Your task to perform on an android device: find which apps use the phone's location Image 0: 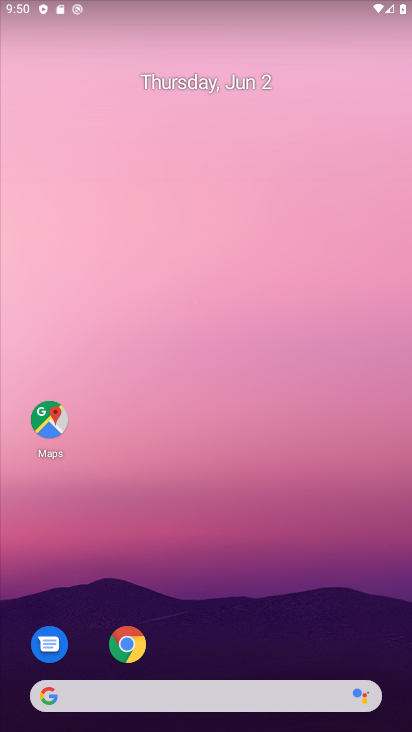
Step 0: drag from (174, 645) to (155, 251)
Your task to perform on an android device: find which apps use the phone's location Image 1: 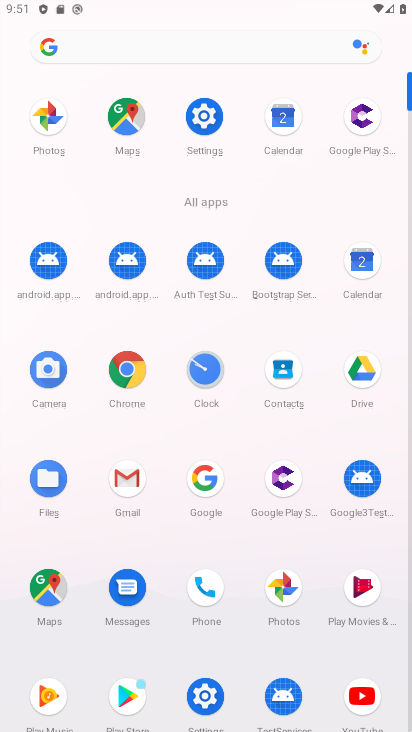
Step 1: click (127, 398)
Your task to perform on an android device: find which apps use the phone's location Image 2: 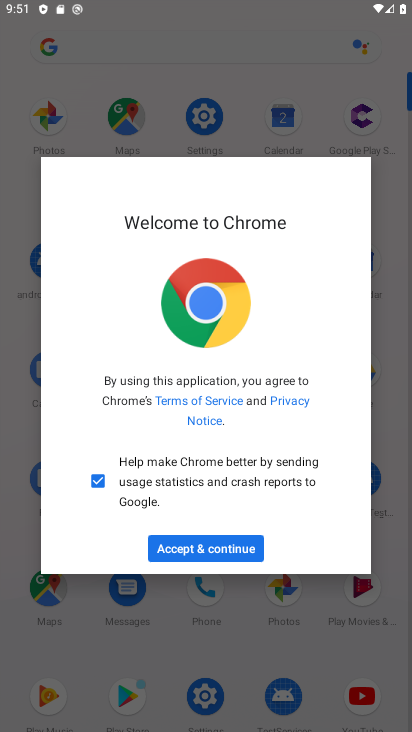
Step 2: click (205, 556)
Your task to perform on an android device: find which apps use the phone's location Image 3: 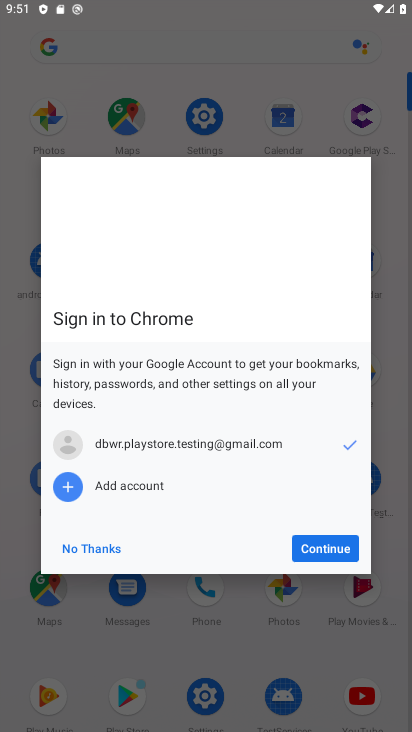
Step 3: click (319, 547)
Your task to perform on an android device: find which apps use the phone's location Image 4: 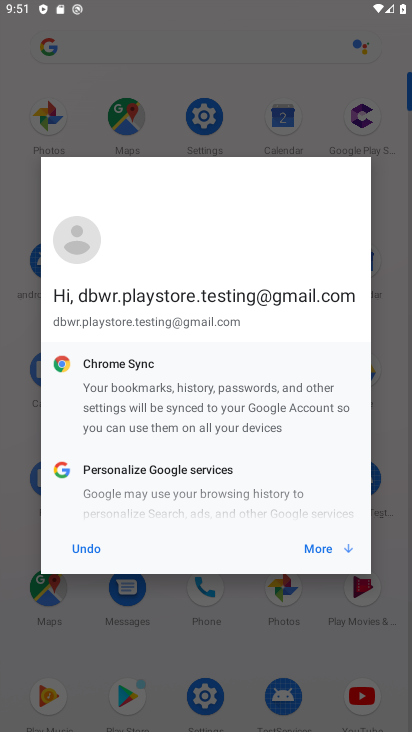
Step 4: click (319, 547)
Your task to perform on an android device: find which apps use the phone's location Image 5: 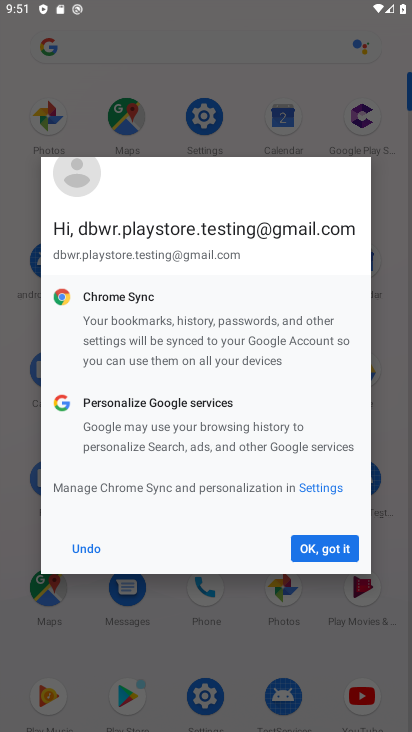
Step 5: click (319, 547)
Your task to perform on an android device: find which apps use the phone's location Image 6: 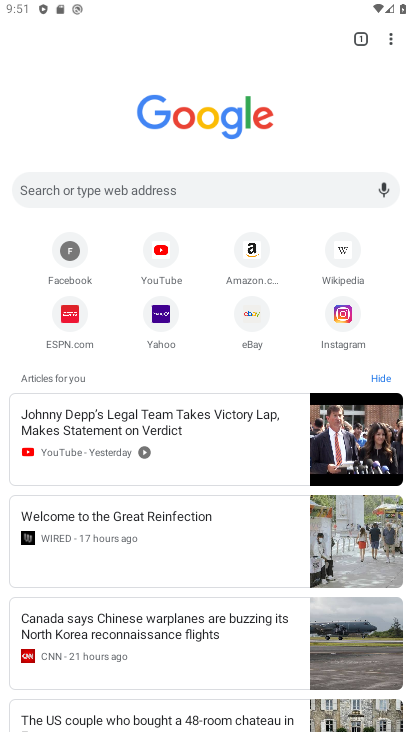
Step 6: press home button
Your task to perform on an android device: find which apps use the phone's location Image 7: 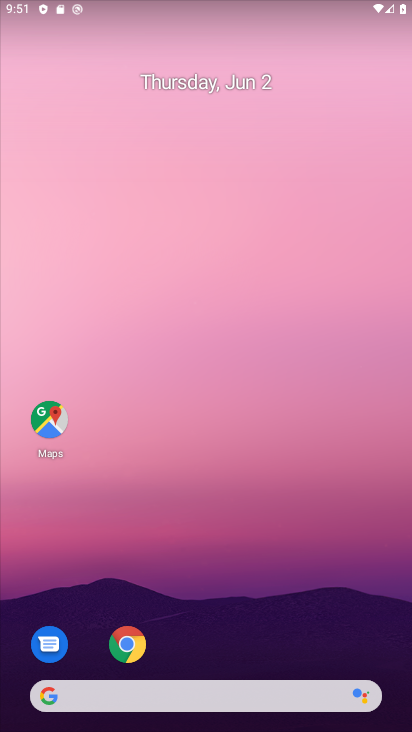
Step 7: drag from (237, 648) to (250, 215)
Your task to perform on an android device: find which apps use the phone's location Image 8: 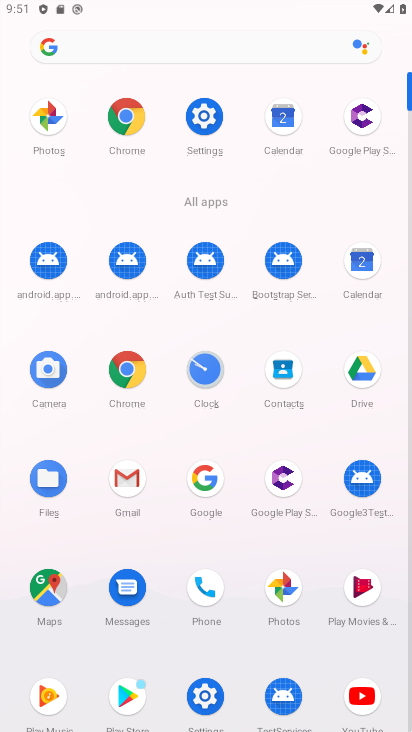
Step 8: click (201, 119)
Your task to perform on an android device: find which apps use the phone's location Image 9: 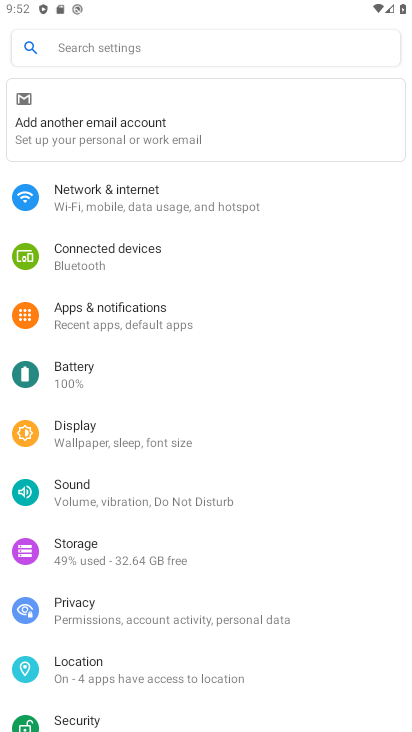
Step 9: click (65, 668)
Your task to perform on an android device: find which apps use the phone's location Image 10: 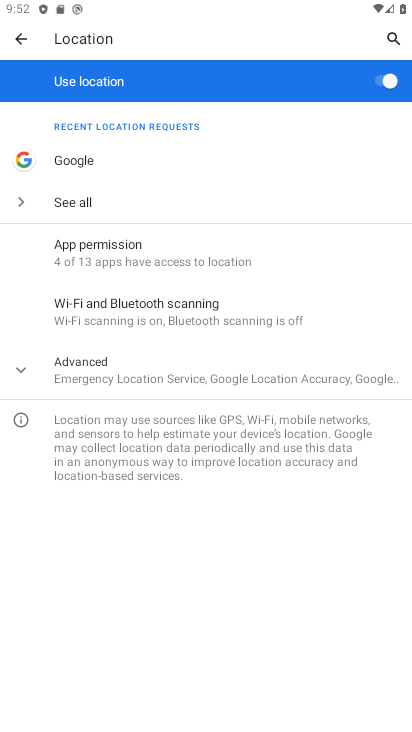
Step 10: click (110, 255)
Your task to perform on an android device: find which apps use the phone's location Image 11: 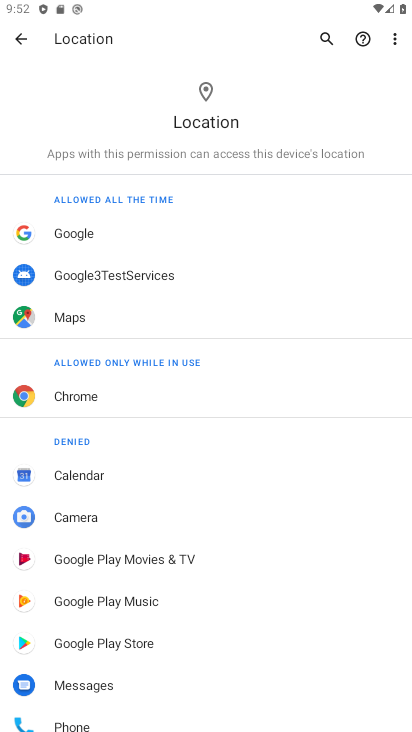
Step 11: task complete